Your task to perform on an android device: set the stopwatch Image 0: 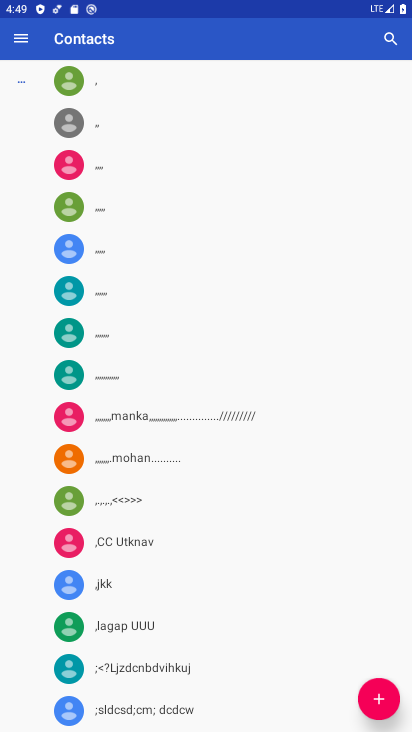
Step 0: press home button
Your task to perform on an android device: set the stopwatch Image 1: 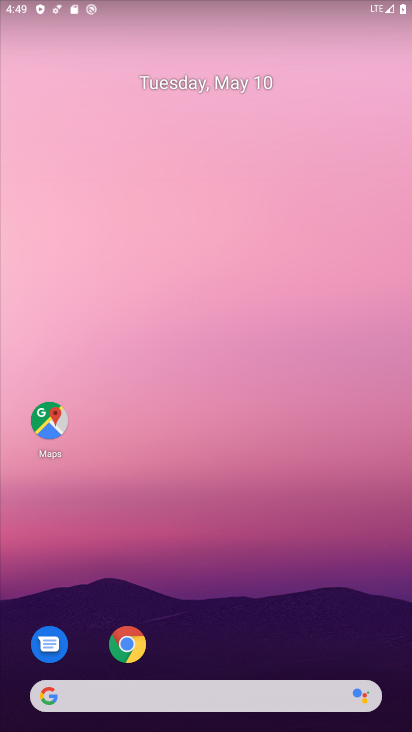
Step 1: drag from (221, 654) to (303, 101)
Your task to perform on an android device: set the stopwatch Image 2: 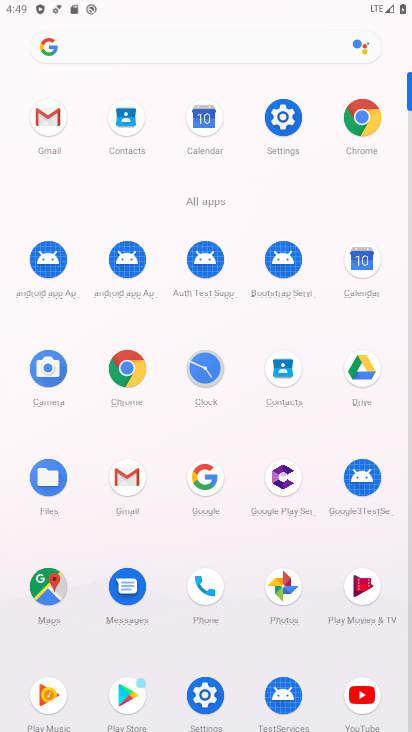
Step 2: click (205, 359)
Your task to perform on an android device: set the stopwatch Image 3: 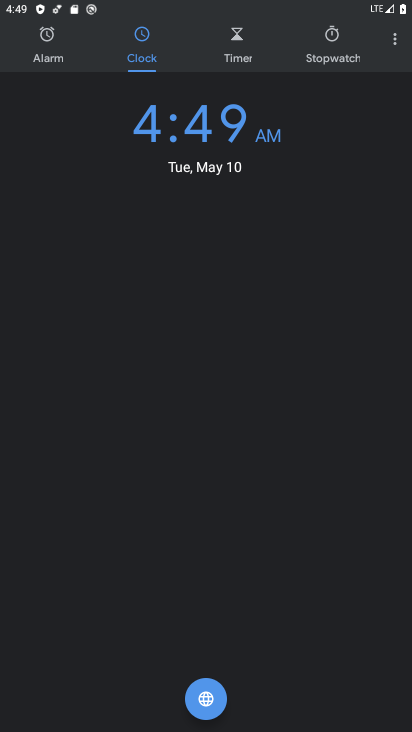
Step 3: click (330, 39)
Your task to perform on an android device: set the stopwatch Image 4: 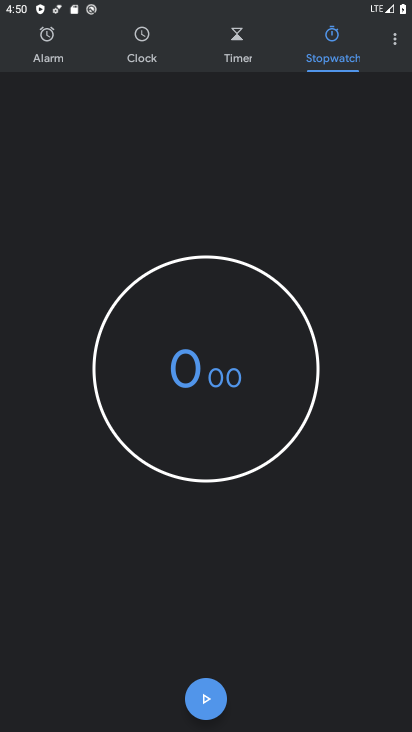
Step 4: click (203, 694)
Your task to perform on an android device: set the stopwatch Image 5: 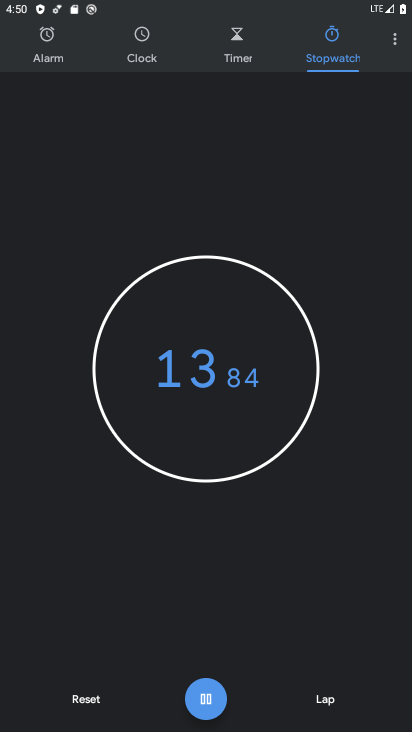
Step 5: click (73, 700)
Your task to perform on an android device: set the stopwatch Image 6: 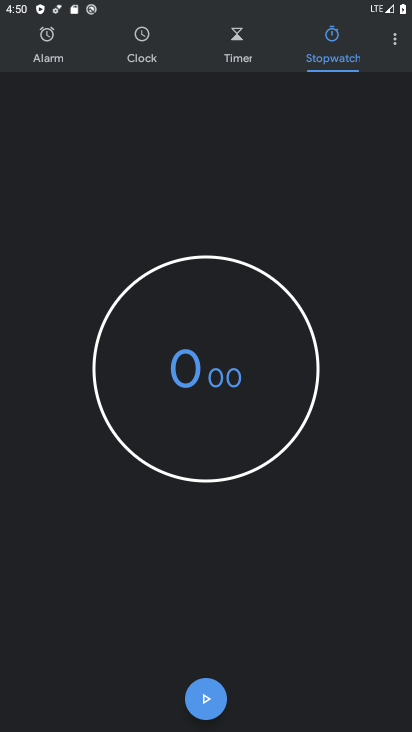
Step 6: task complete